Your task to perform on an android device: change notifications settings Image 0: 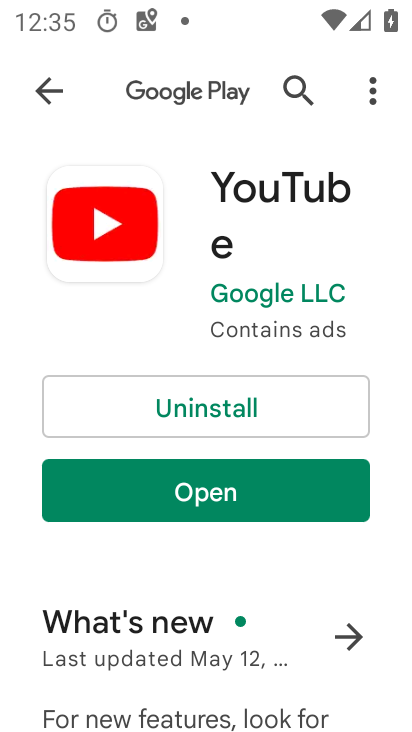
Step 0: press home button
Your task to perform on an android device: change notifications settings Image 1: 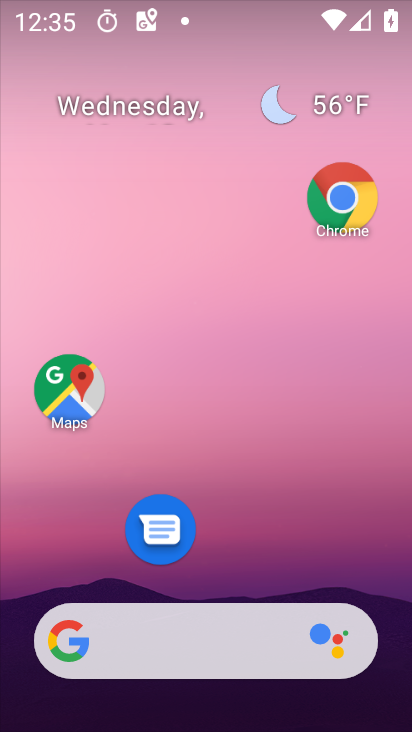
Step 1: drag from (276, 554) to (231, 87)
Your task to perform on an android device: change notifications settings Image 2: 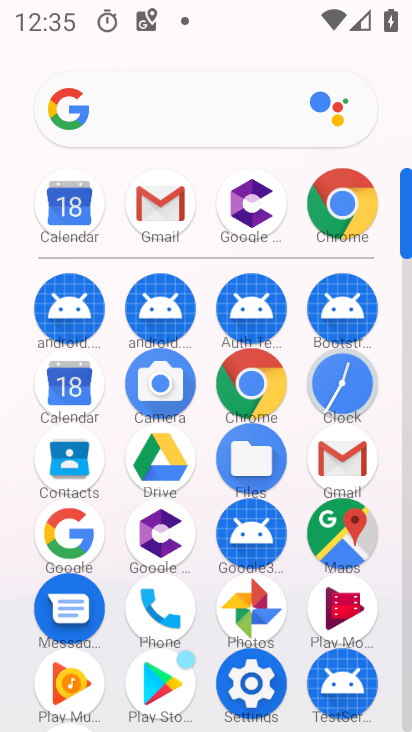
Step 2: click (247, 677)
Your task to perform on an android device: change notifications settings Image 3: 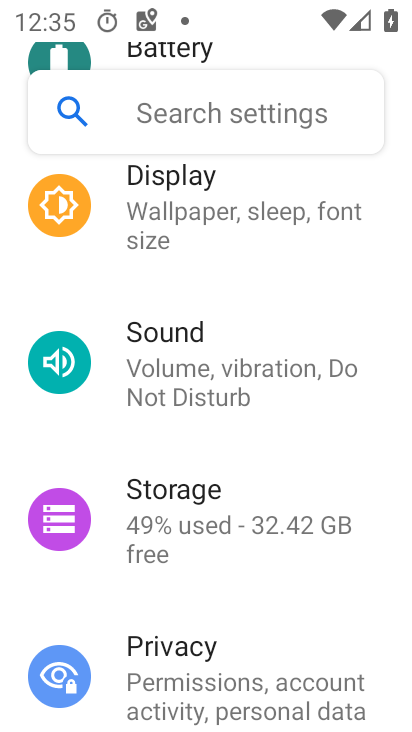
Step 3: drag from (214, 289) to (255, 703)
Your task to perform on an android device: change notifications settings Image 4: 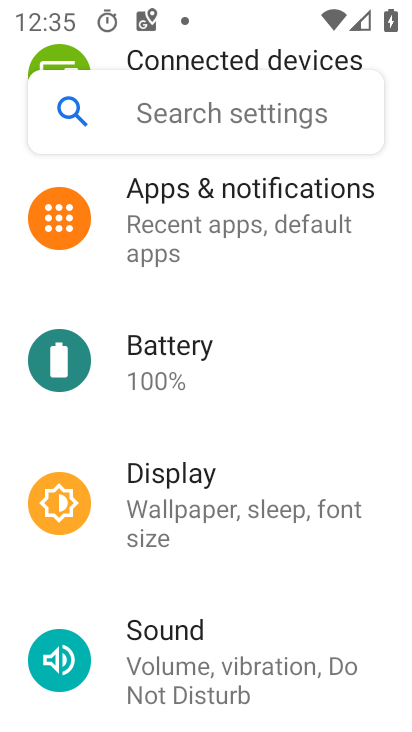
Step 4: click (203, 212)
Your task to perform on an android device: change notifications settings Image 5: 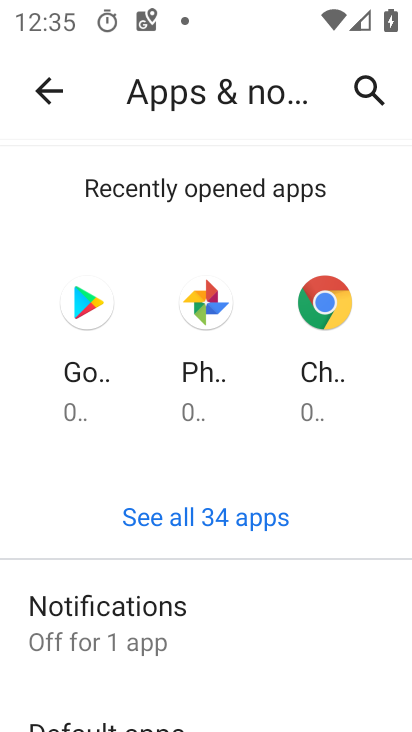
Step 5: task complete